Your task to perform on an android device: Check the weather Image 0: 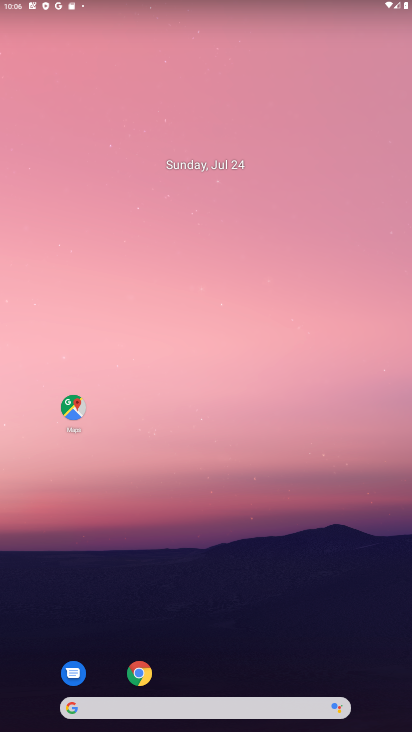
Step 0: click (126, 719)
Your task to perform on an android device: Check the weather Image 1: 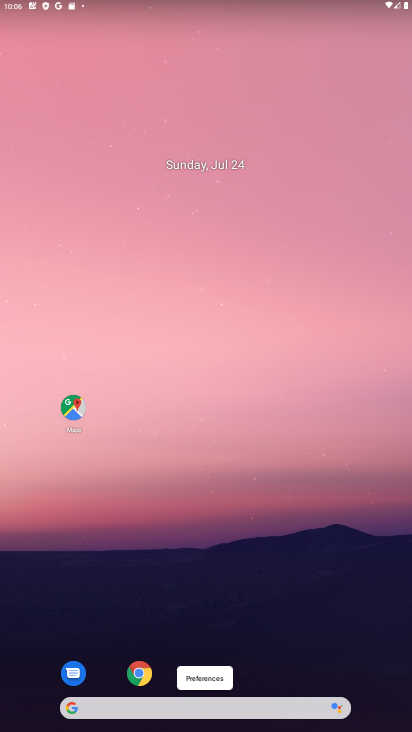
Step 1: click (114, 700)
Your task to perform on an android device: Check the weather Image 2: 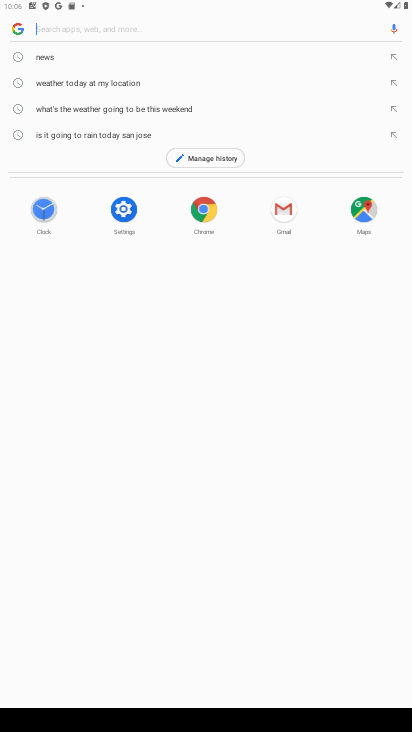
Step 2: type "weather"
Your task to perform on an android device: Check the weather Image 3: 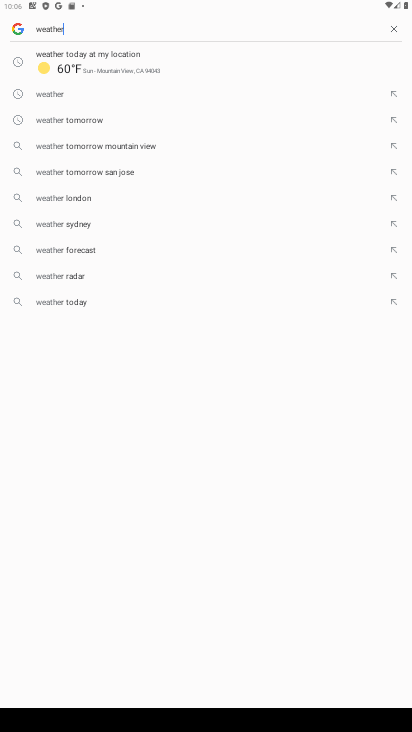
Step 3: type ""
Your task to perform on an android device: Check the weather Image 4: 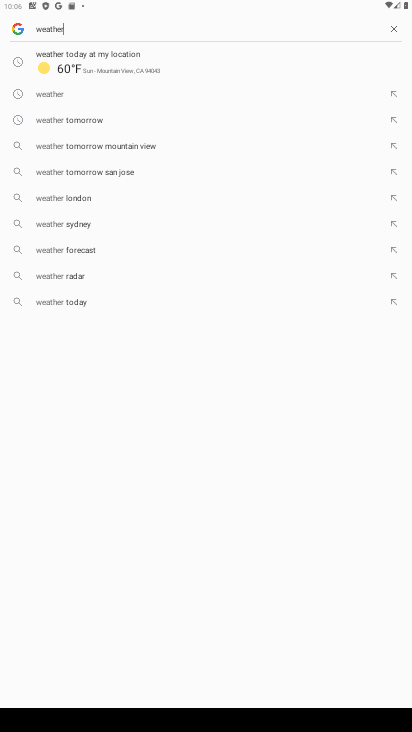
Step 4: task complete